Your task to perform on an android device: turn notification dots off Image 0: 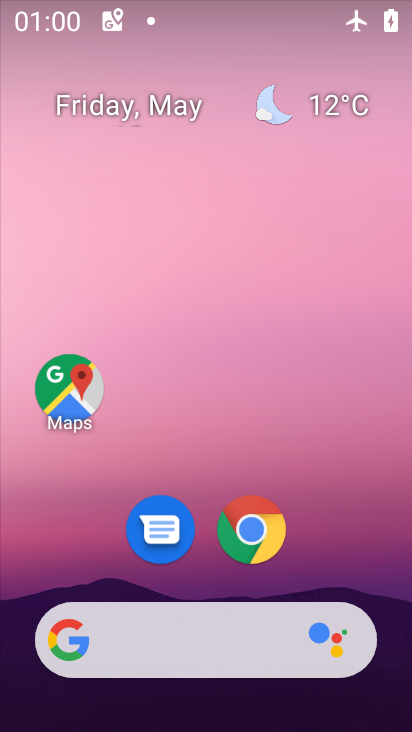
Step 0: drag from (349, 448) to (343, 356)
Your task to perform on an android device: turn notification dots off Image 1: 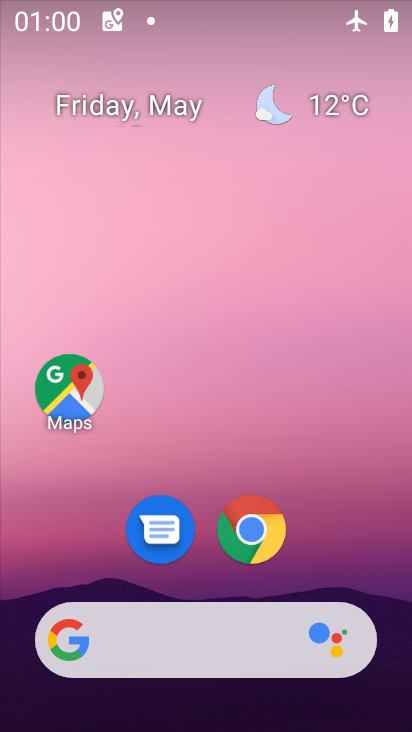
Step 1: drag from (315, 548) to (320, 275)
Your task to perform on an android device: turn notification dots off Image 2: 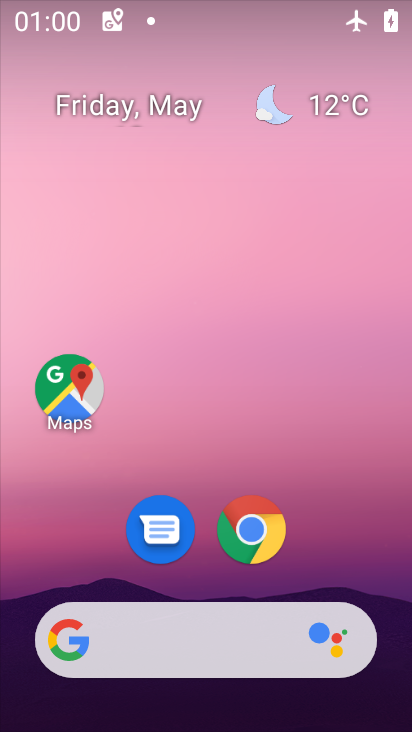
Step 2: drag from (338, 565) to (356, 254)
Your task to perform on an android device: turn notification dots off Image 3: 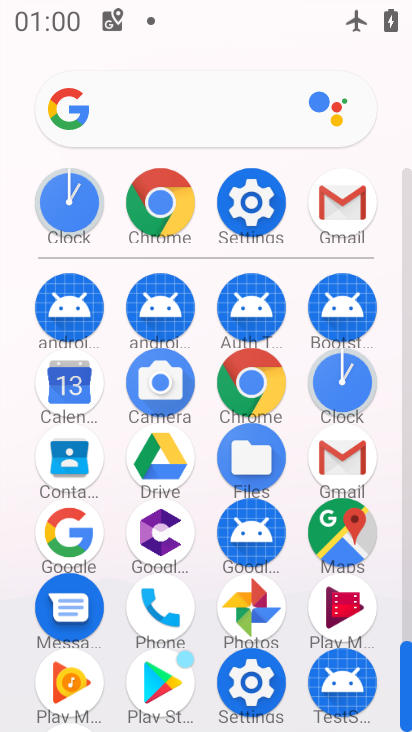
Step 3: click (245, 200)
Your task to perform on an android device: turn notification dots off Image 4: 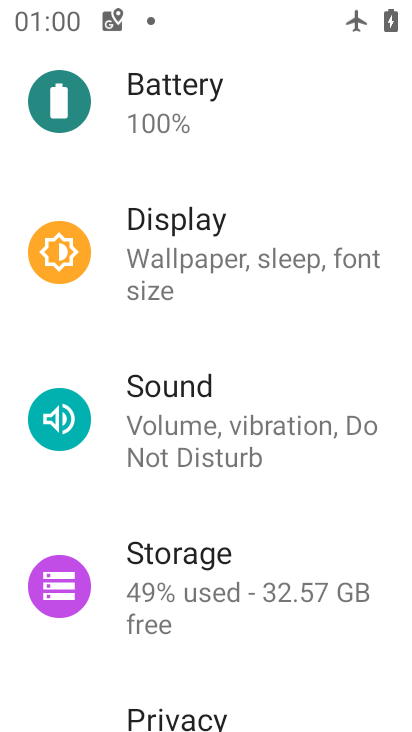
Step 4: drag from (234, 133) to (171, 726)
Your task to perform on an android device: turn notification dots off Image 5: 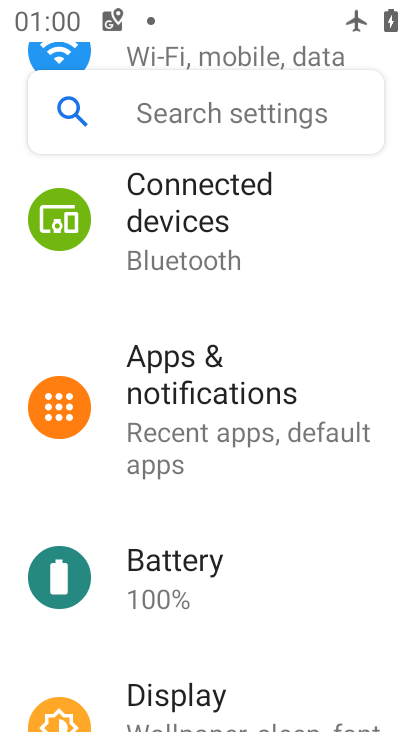
Step 5: drag from (209, 177) to (229, 600)
Your task to perform on an android device: turn notification dots off Image 6: 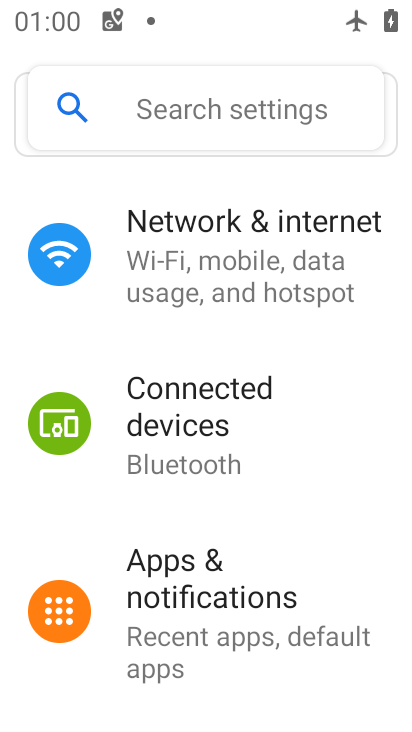
Step 6: click (211, 111)
Your task to perform on an android device: turn notification dots off Image 7: 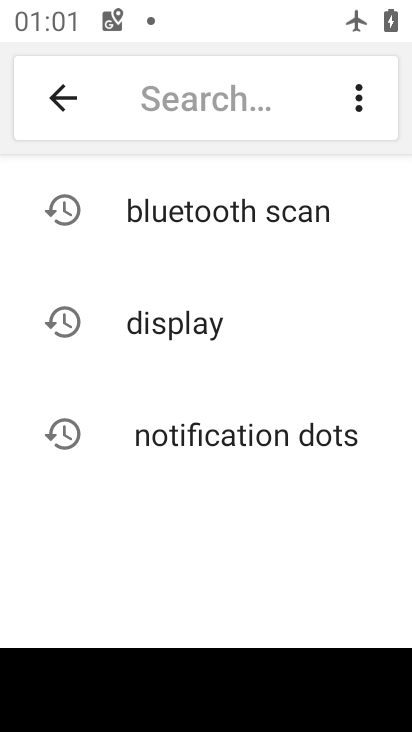
Step 7: click (236, 415)
Your task to perform on an android device: turn notification dots off Image 8: 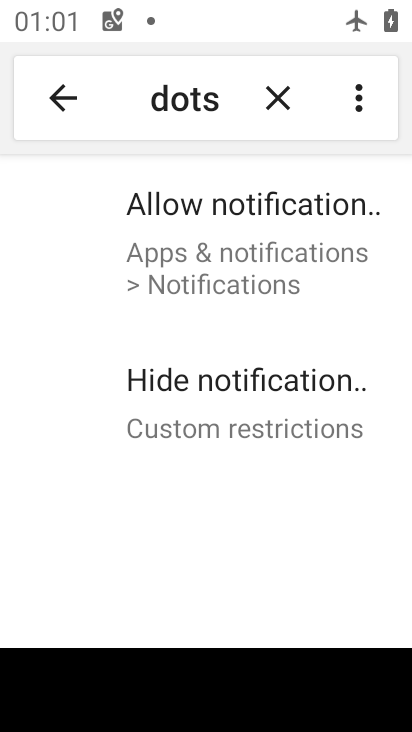
Step 8: click (215, 228)
Your task to perform on an android device: turn notification dots off Image 9: 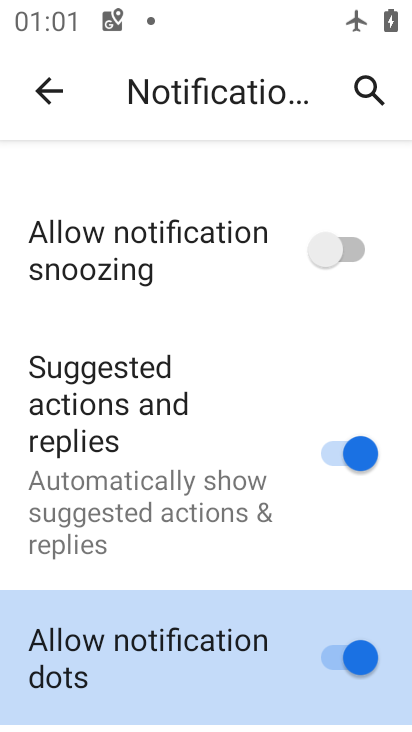
Step 9: click (345, 660)
Your task to perform on an android device: turn notification dots off Image 10: 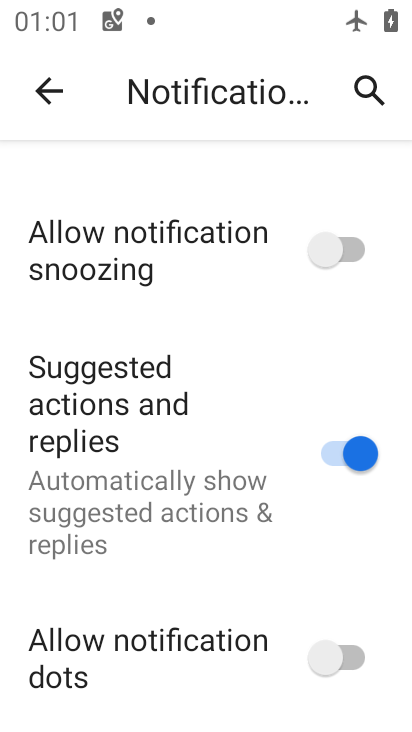
Step 10: task complete